Your task to perform on an android device: search for starred emails in the gmail app Image 0: 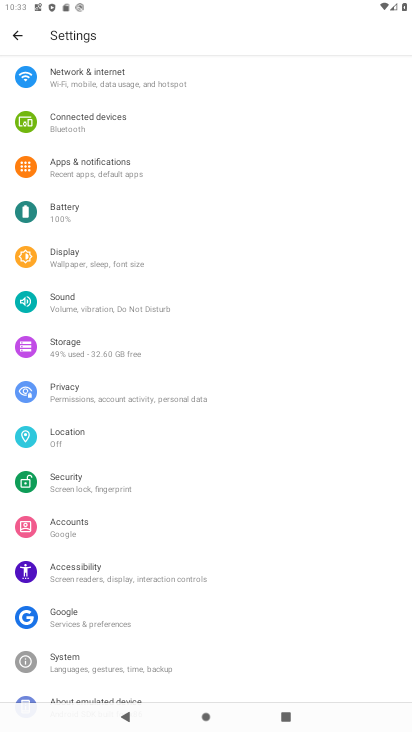
Step 0: press home button
Your task to perform on an android device: search for starred emails in the gmail app Image 1: 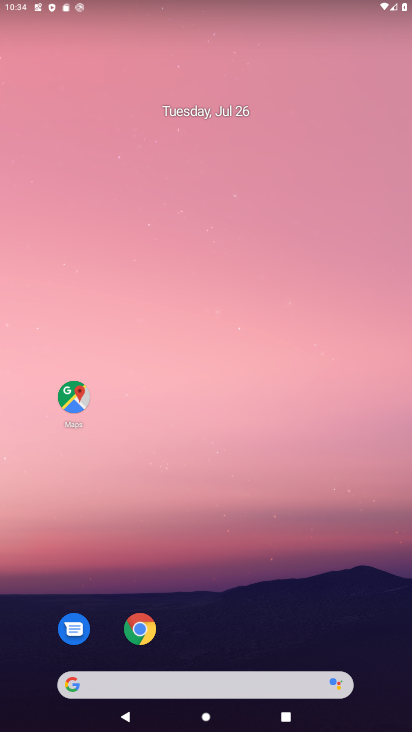
Step 1: drag from (243, 658) to (276, 208)
Your task to perform on an android device: search for starred emails in the gmail app Image 2: 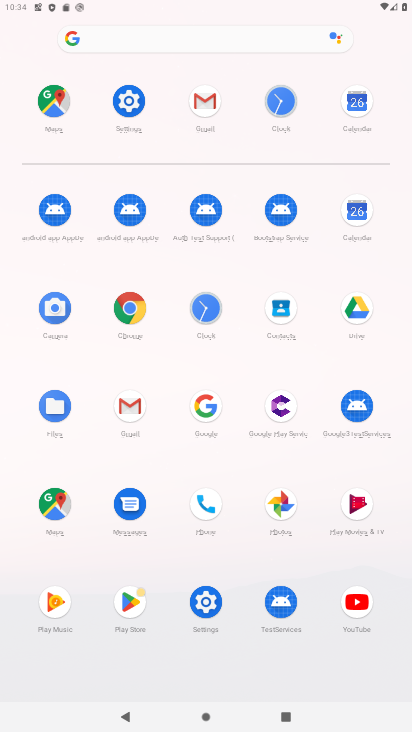
Step 2: click (211, 110)
Your task to perform on an android device: search for starred emails in the gmail app Image 3: 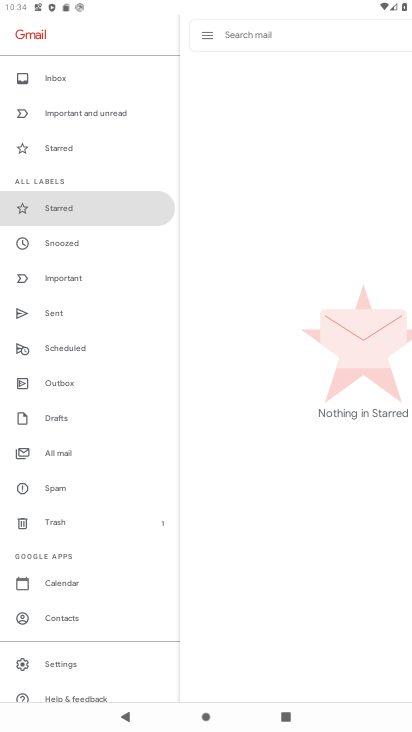
Step 3: click (69, 148)
Your task to perform on an android device: search for starred emails in the gmail app Image 4: 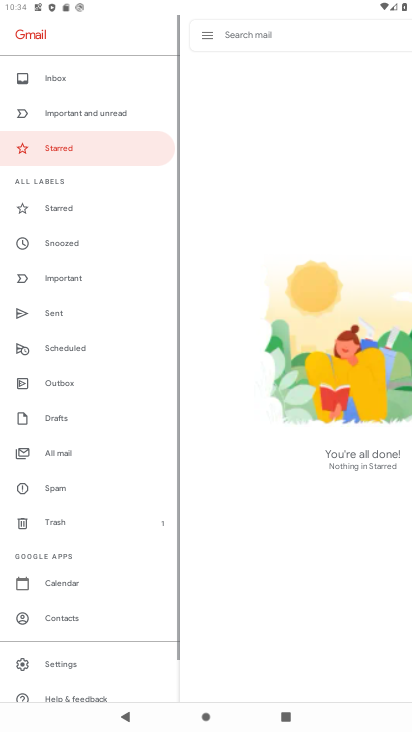
Step 4: task complete